Your task to perform on an android device: turn notification dots on Image 0: 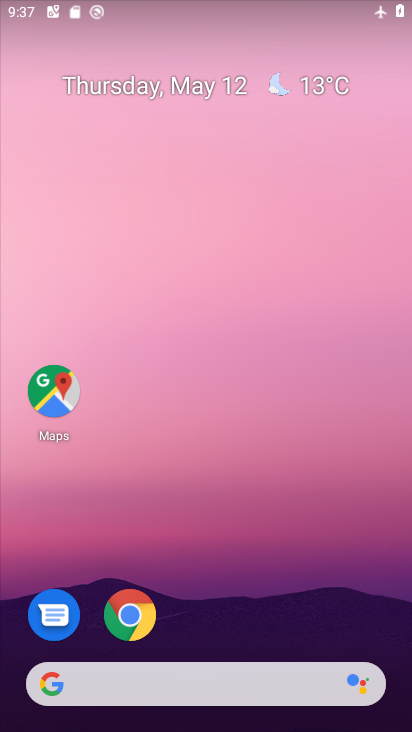
Step 0: drag from (246, 533) to (132, 24)
Your task to perform on an android device: turn notification dots on Image 1: 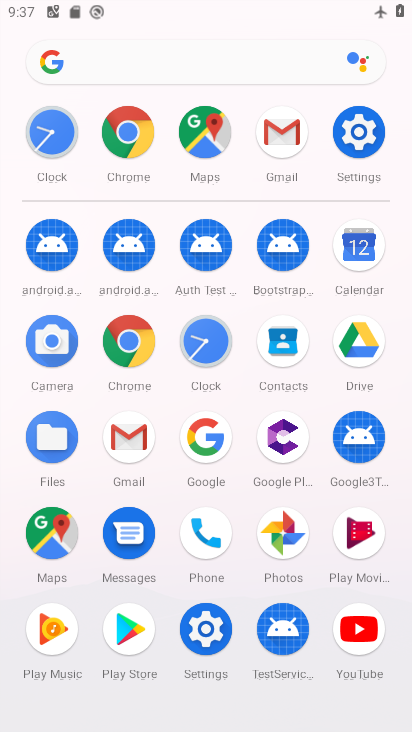
Step 1: click (357, 139)
Your task to perform on an android device: turn notification dots on Image 2: 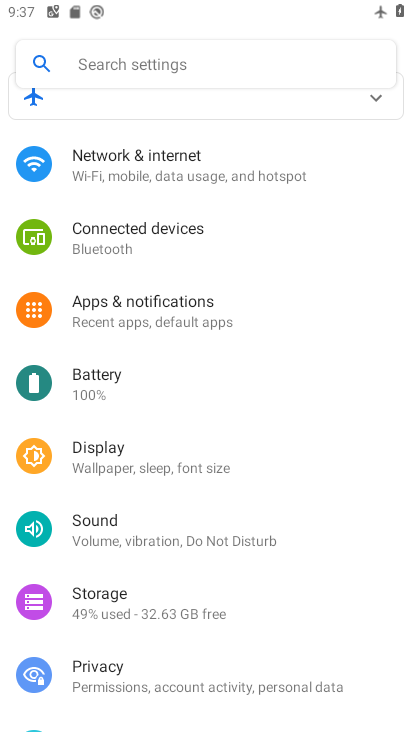
Step 2: click (158, 316)
Your task to perform on an android device: turn notification dots on Image 3: 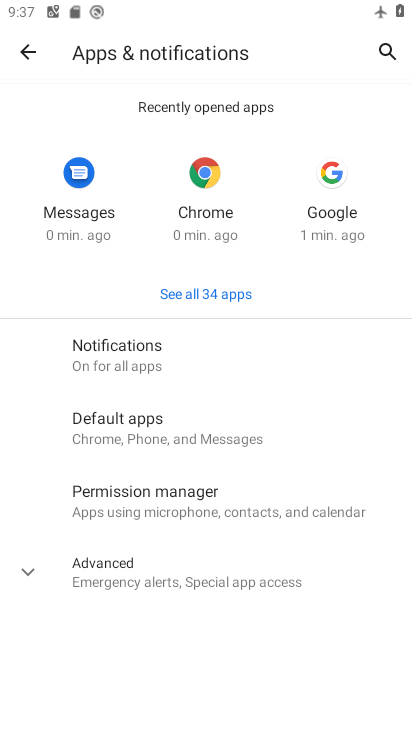
Step 3: click (110, 343)
Your task to perform on an android device: turn notification dots on Image 4: 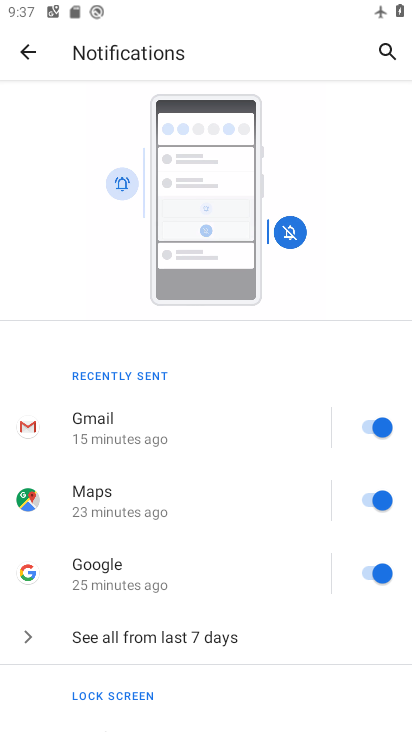
Step 4: drag from (201, 556) to (119, 207)
Your task to perform on an android device: turn notification dots on Image 5: 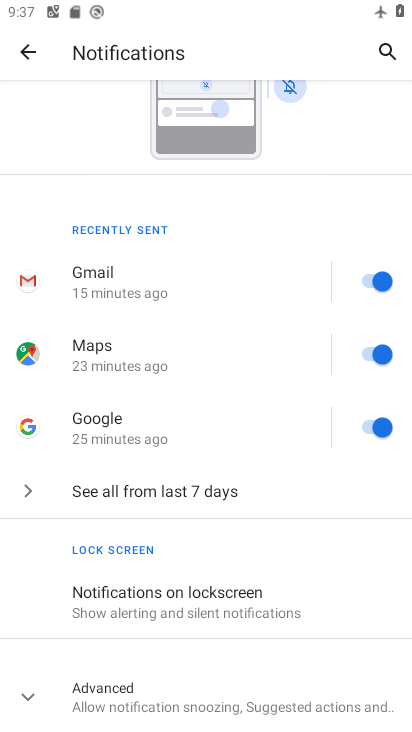
Step 5: click (33, 694)
Your task to perform on an android device: turn notification dots on Image 6: 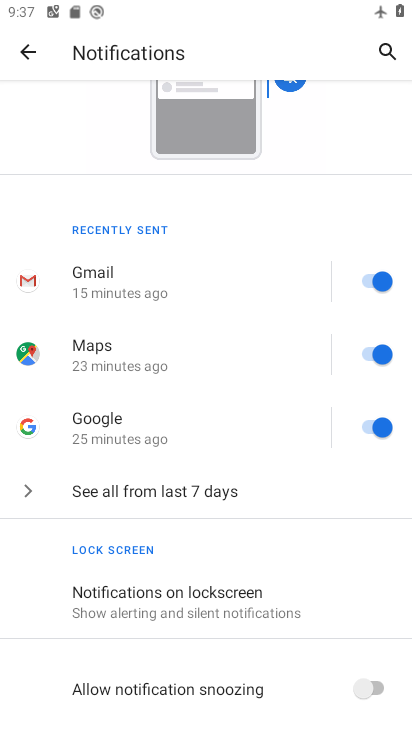
Step 6: task complete